Your task to perform on an android device: Toggle the flashlight Image 0: 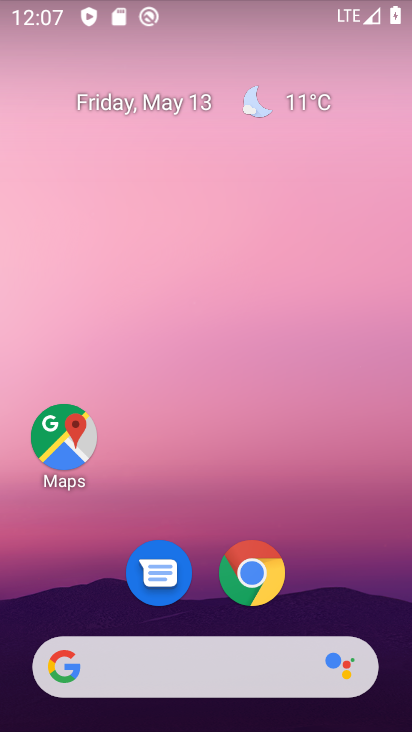
Step 0: drag from (243, 474) to (276, 268)
Your task to perform on an android device: Toggle the flashlight Image 1: 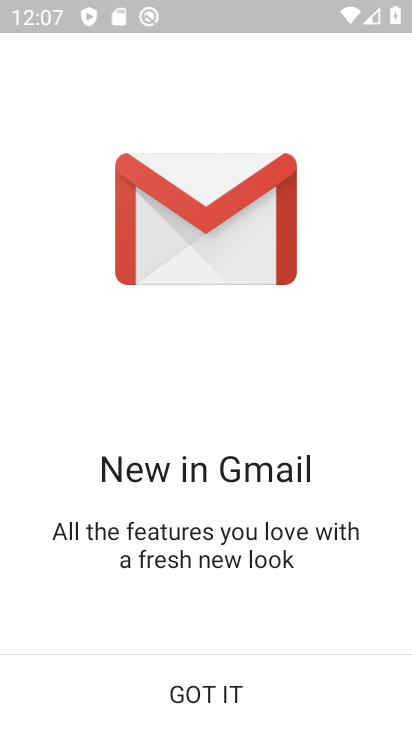
Step 1: press home button
Your task to perform on an android device: Toggle the flashlight Image 2: 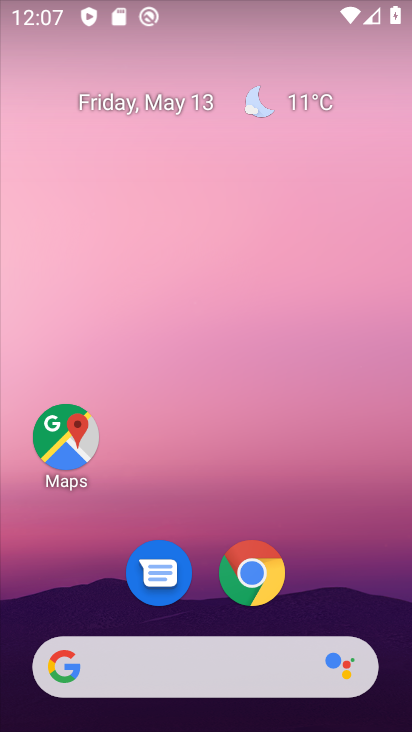
Step 2: drag from (250, 699) to (383, 295)
Your task to perform on an android device: Toggle the flashlight Image 3: 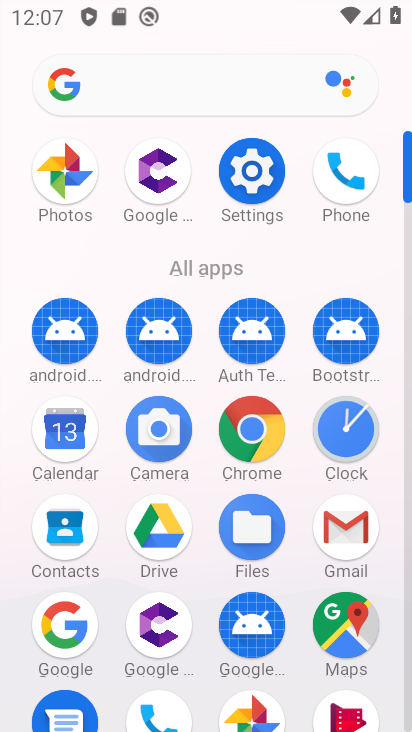
Step 3: click (260, 191)
Your task to perform on an android device: Toggle the flashlight Image 4: 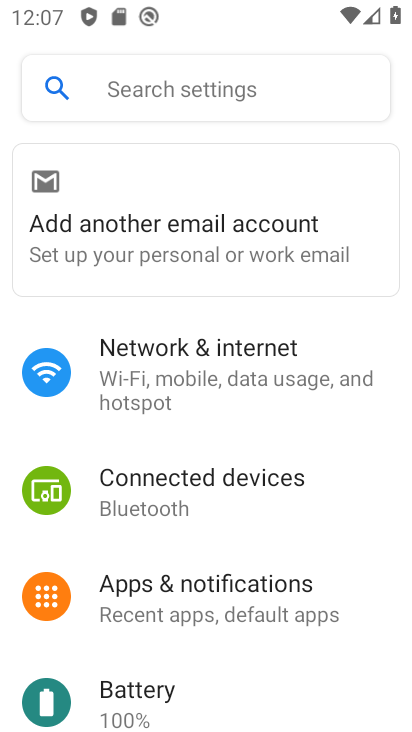
Step 4: click (188, 86)
Your task to perform on an android device: Toggle the flashlight Image 5: 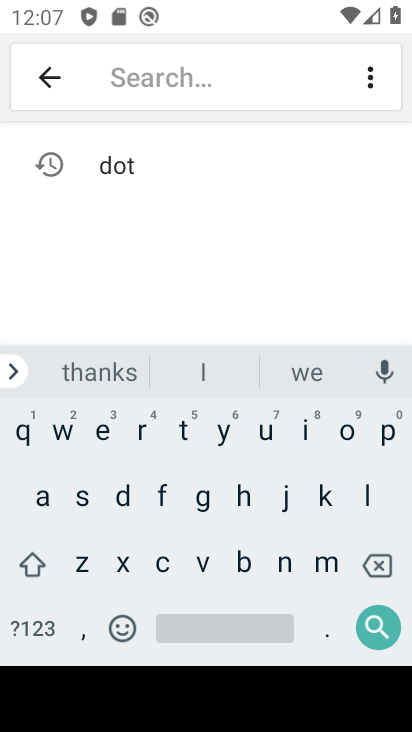
Step 5: click (158, 497)
Your task to perform on an android device: Toggle the flashlight Image 6: 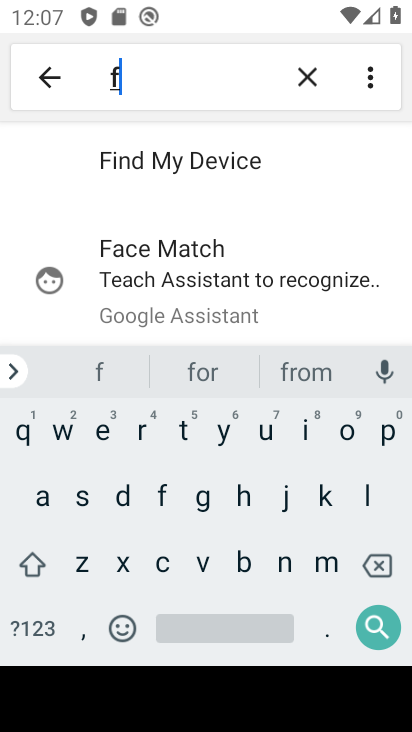
Step 6: click (371, 498)
Your task to perform on an android device: Toggle the flashlight Image 7: 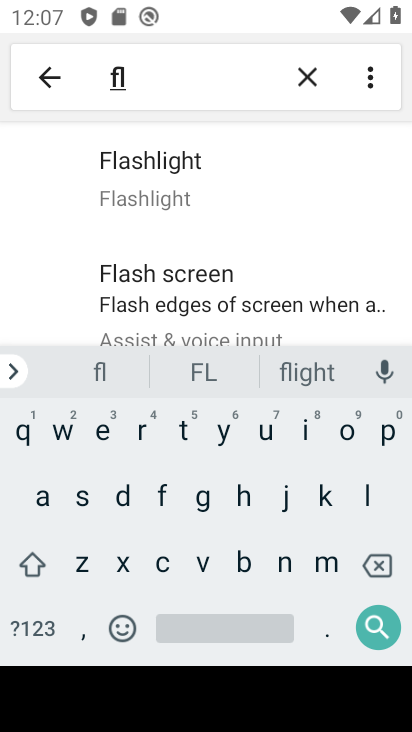
Step 7: click (167, 183)
Your task to perform on an android device: Toggle the flashlight Image 8: 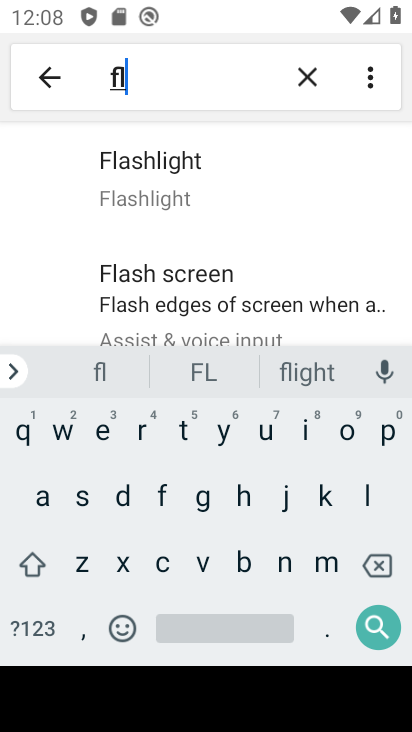
Step 8: task complete